Your task to perform on an android device: Go to Reddit.com Image 0: 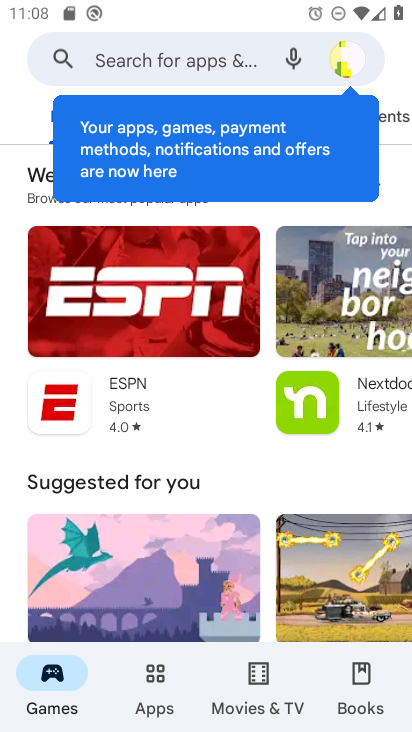
Step 0: press home button
Your task to perform on an android device: Go to Reddit.com Image 1: 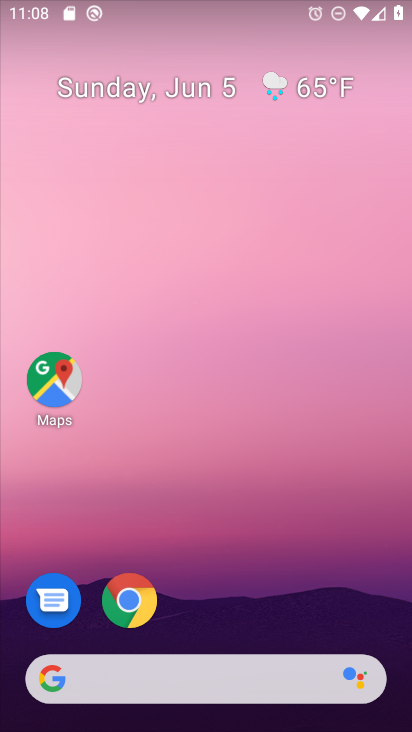
Step 1: drag from (357, 620) to (201, 90)
Your task to perform on an android device: Go to Reddit.com Image 2: 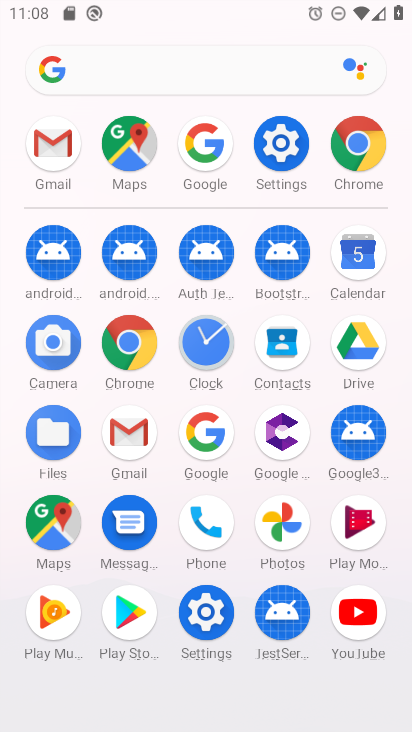
Step 2: click (215, 442)
Your task to perform on an android device: Go to Reddit.com Image 3: 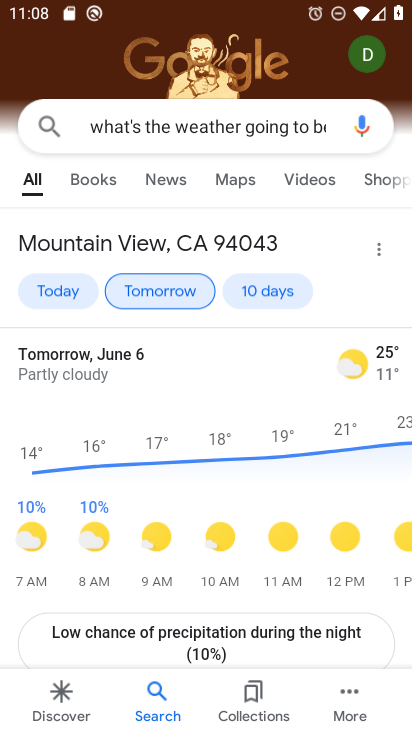
Step 3: press back button
Your task to perform on an android device: Go to Reddit.com Image 4: 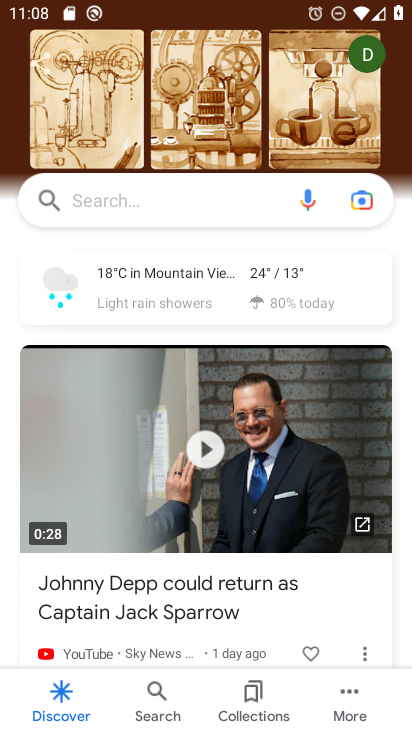
Step 4: click (160, 193)
Your task to perform on an android device: Go to Reddit.com Image 5: 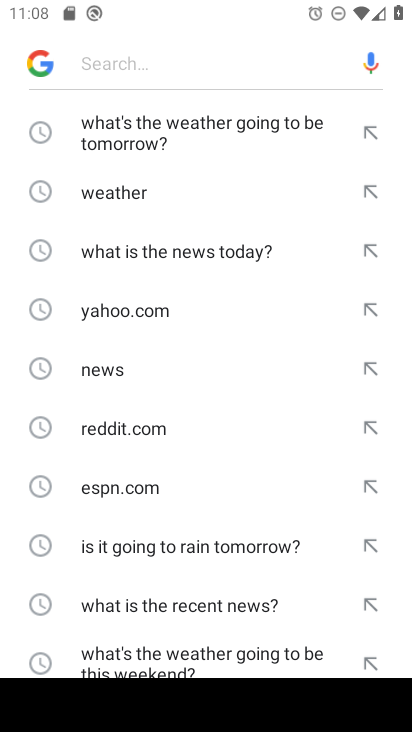
Step 5: click (130, 437)
Your task to perform on an android device: Go to Reddit.com Image 6: 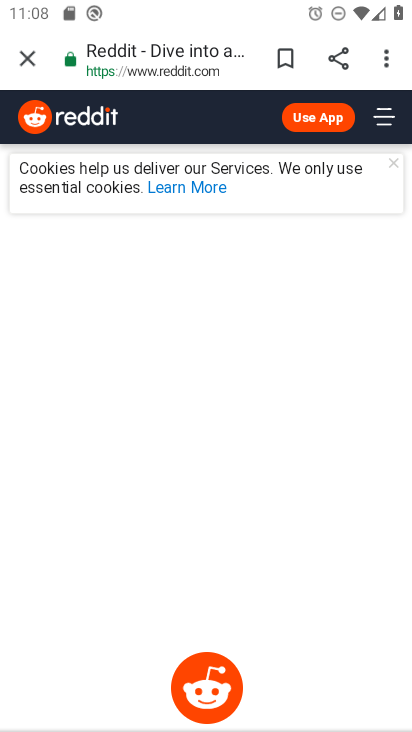
Step 6: task complete